Your task to perform on an android device: Open calendar and show me the first week of next month Image 0: 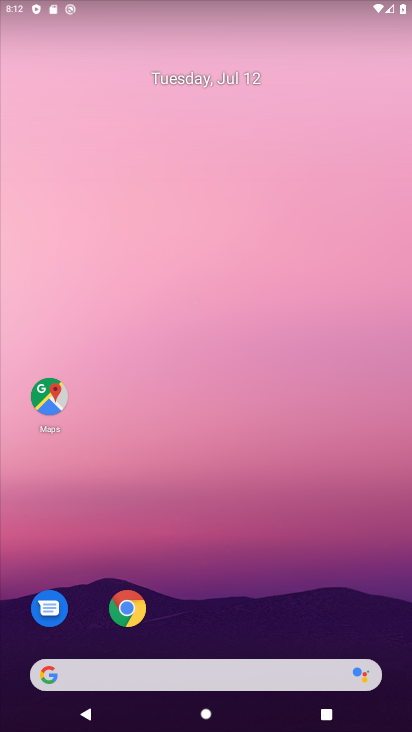
Step 0: drag from (264, 588) to (278, 143)
Your task to perform on an android device: Open calendar and show me the first week of next month Image 1: 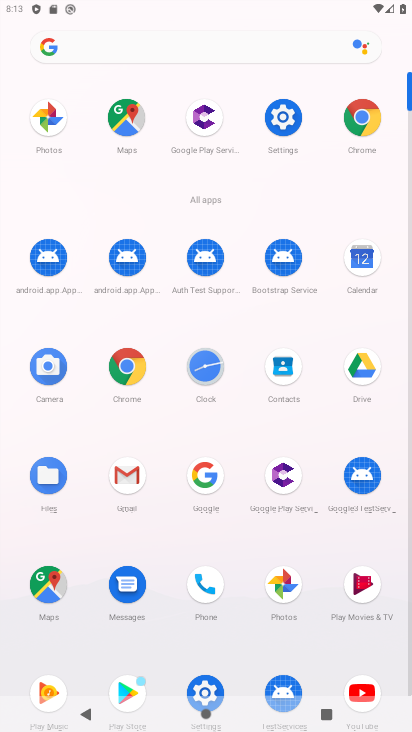
Step 1: click (367, 267)
Your task to perform on an android device: Open calendar and show me the first week of next month Image 2: 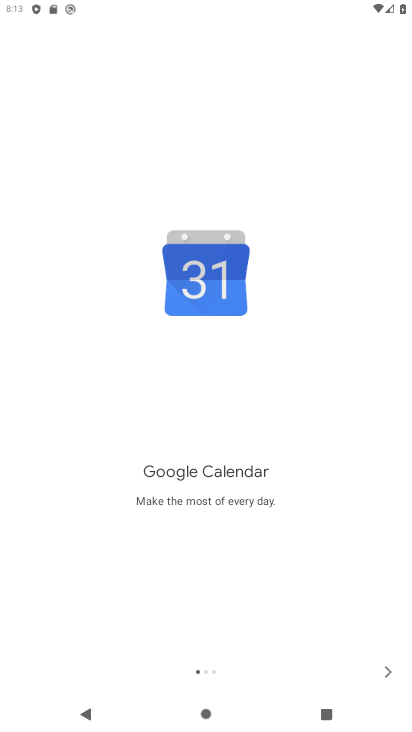
Step 2: click (389, 680)
Your task to perform on an android device: Open calendar and show me the first week of next month Image 3: 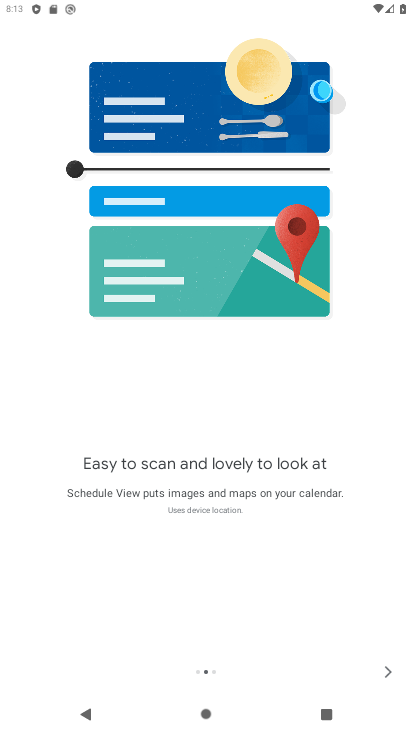
Step 3: click (389, 680)
Your task to perform on an android device: Open calendar and show me the first week of next month Image 4: 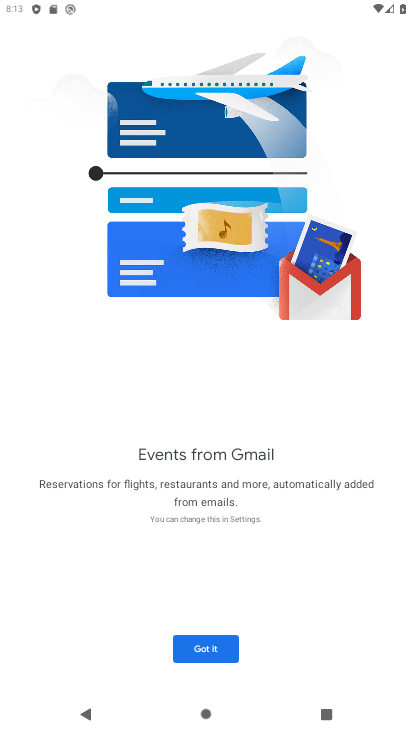
Step 4: click (224, 637)
Your task to perform on an android device: Open calendar and show me the first week of next month Image 5: 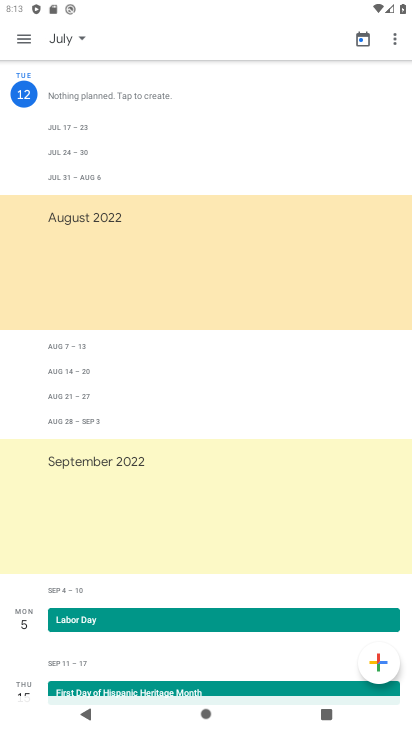
Step 5: click (75, 39)
Your task to perform on an android device: Open calendar and show me the first week of next month Image 6: 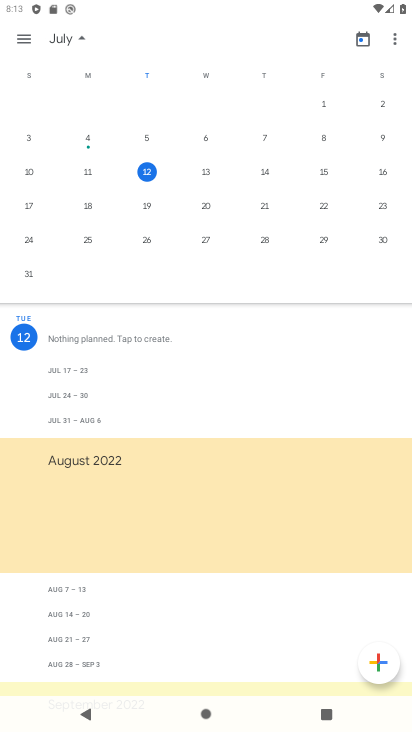
Step 6: task complete